Your task to perform on an android device: toggle data saver in the chrome app Image 0: 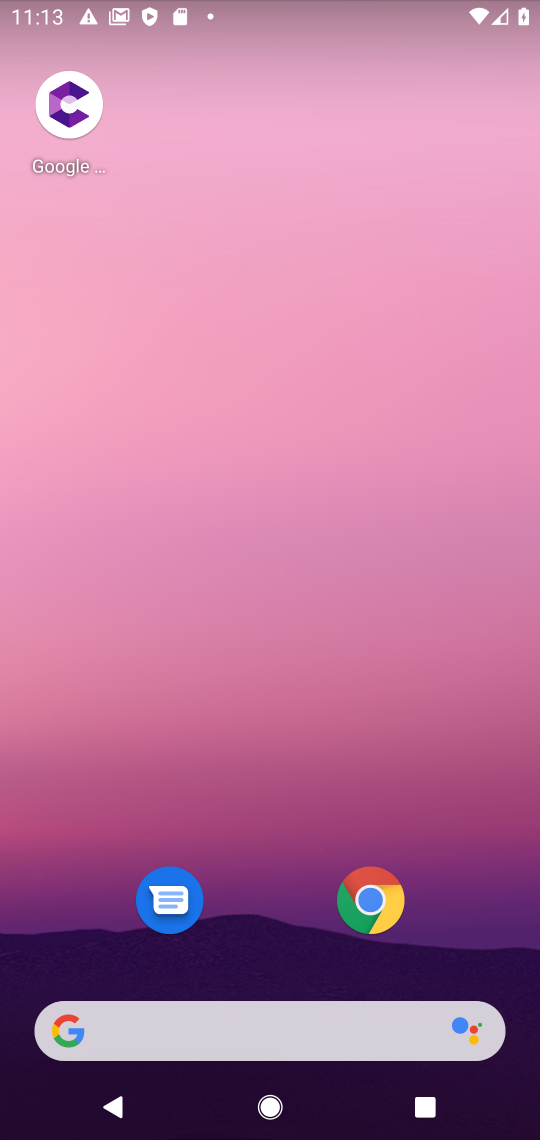
Step 0: click (367, 897)
Your task to perform on an android device: toggle data saver in the chrome app Image 1: 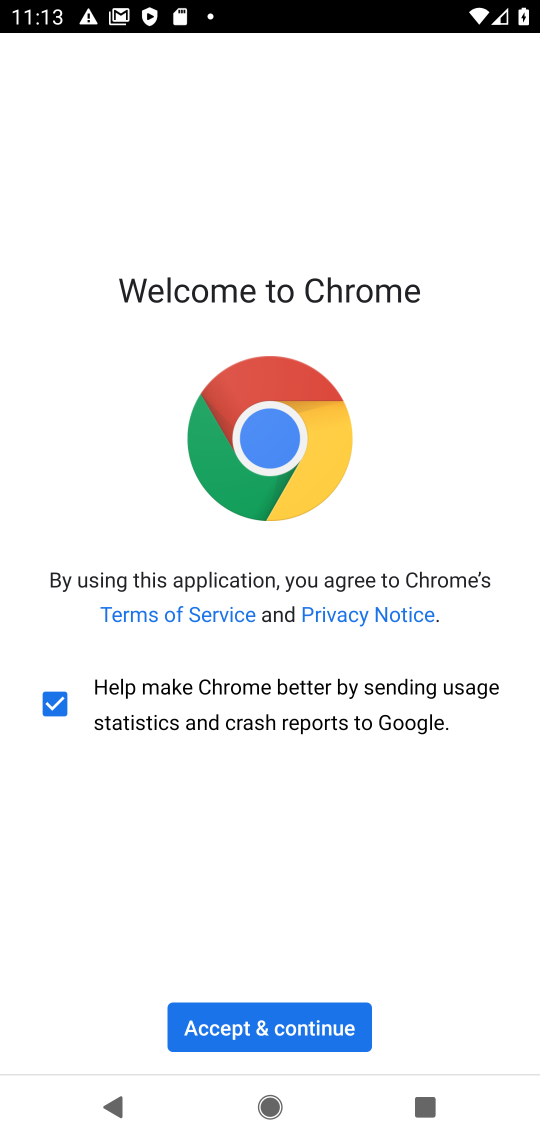
Step 1: click (270, 1031)
Your task to perform on an android device: toggle data saver in the chrome app Image 2: 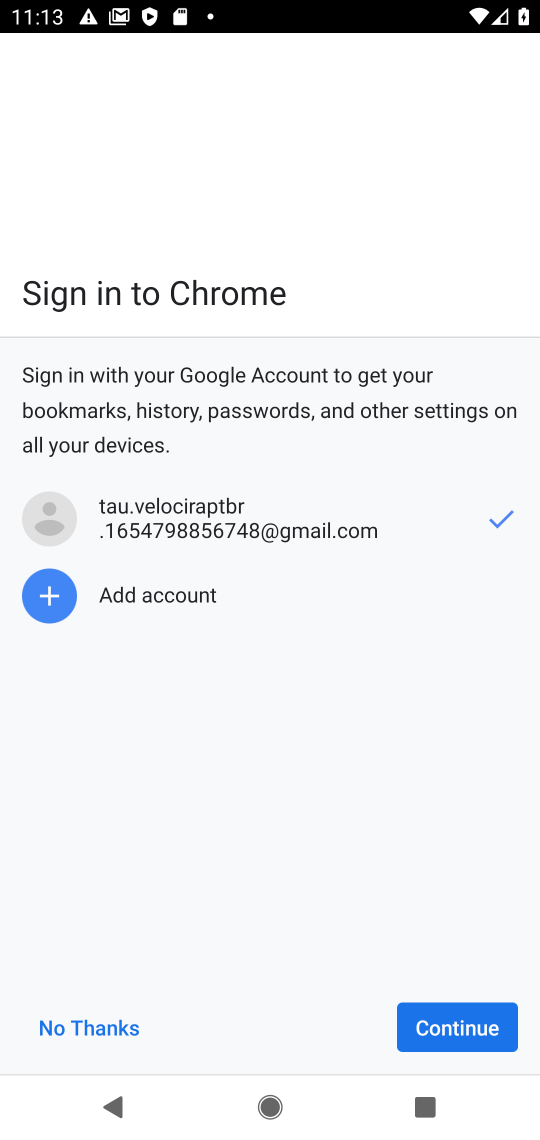
Step 2: click (460, 1025)
Your task to perform on an android device: toggle data saver in the chrome app Image 3: 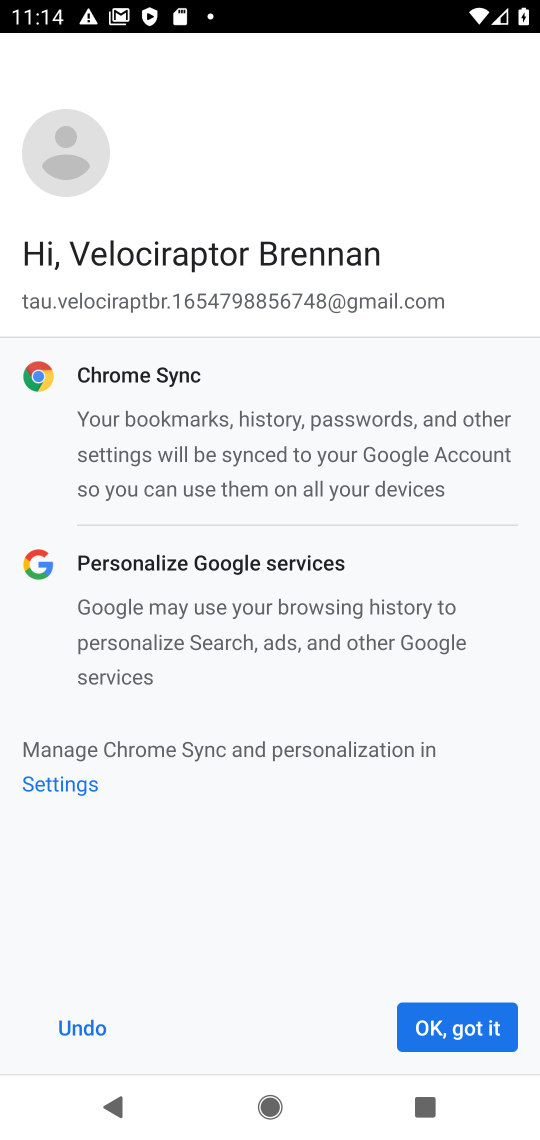
Step 3: click (454, 1021)
Your task to perform on an android device: toggle data saver in the chrome app Image 4: 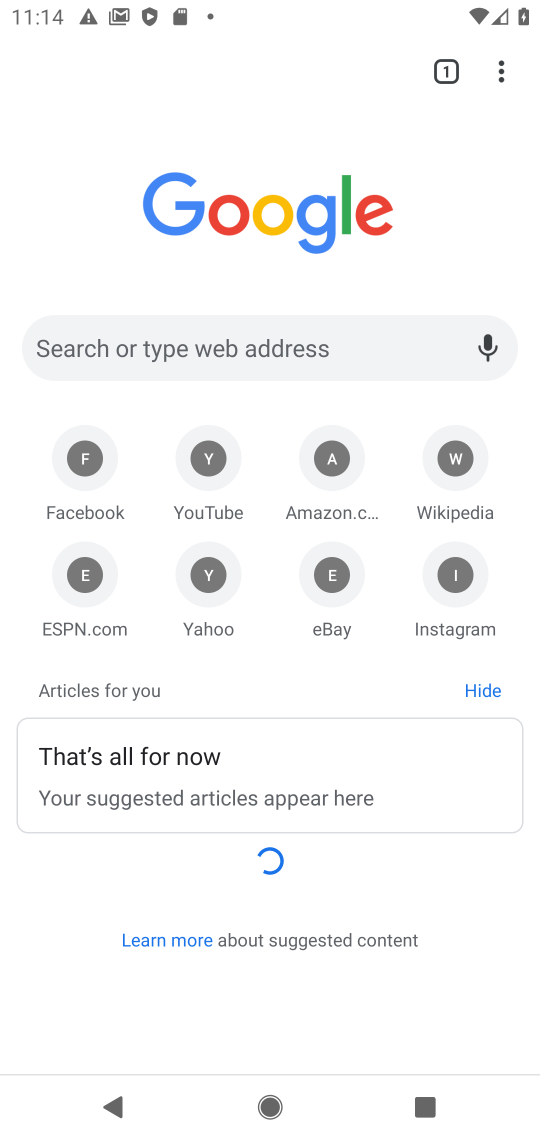
Step 4: drag from (503, 71) to (262, 599)
Your task to perform on an android device: toggle data saver in the chrome app Image 5: 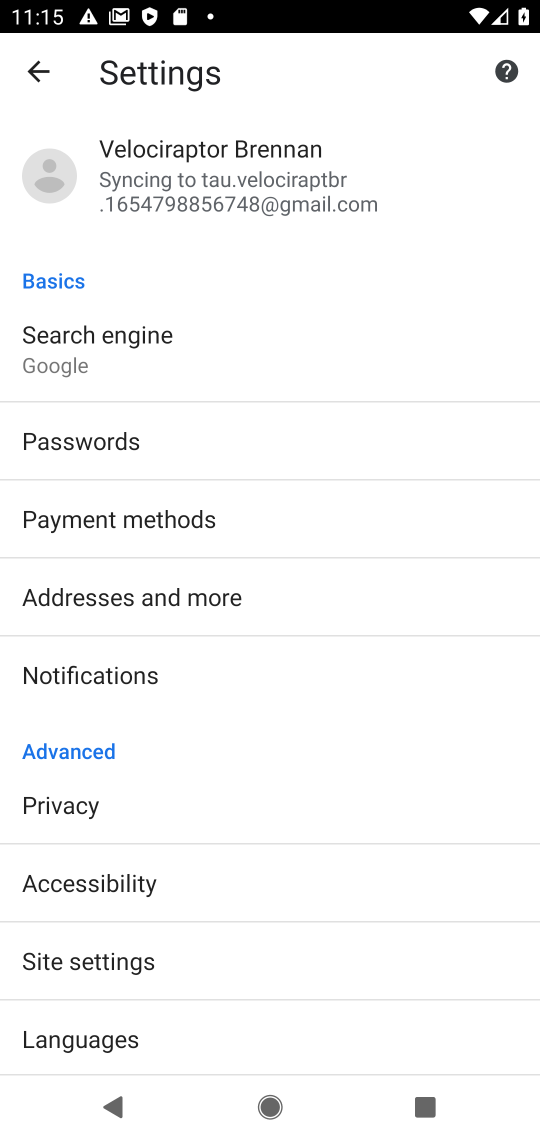
Step 5: drag from (103, 1020) to (122, 626)
Your task to perform on an android device: toggle data saver in the chrome app Image 6: 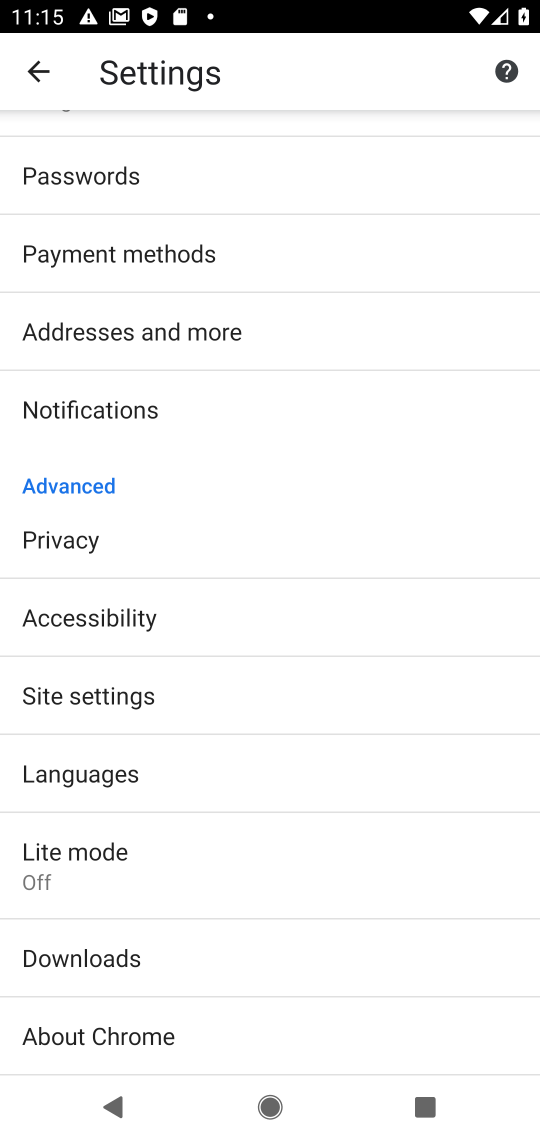
Step 6: click (96, 856)
Your task to perform on an android device: toggle data saver in the chrome app Image 7: 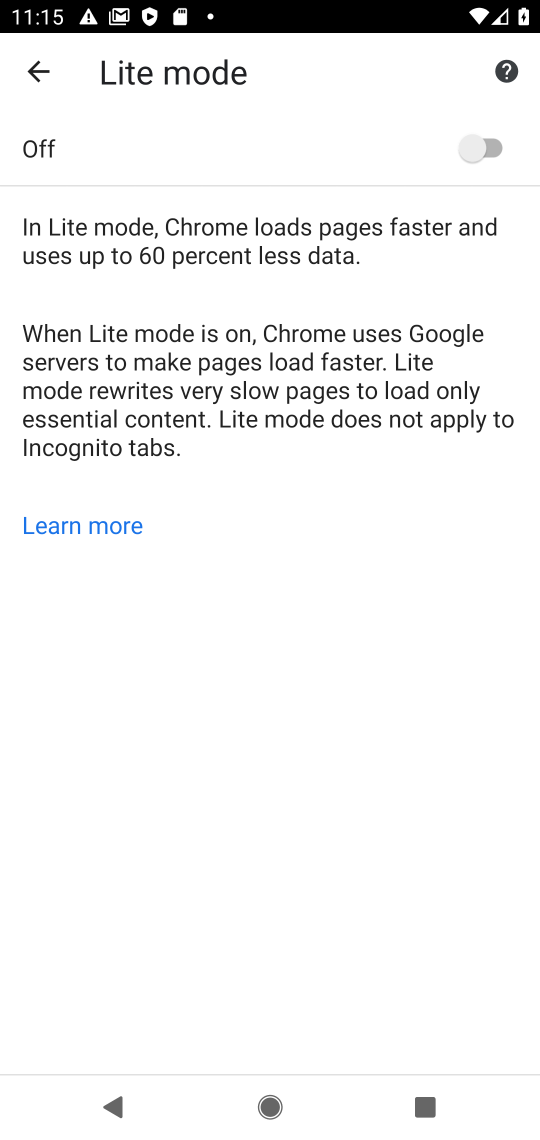
Step 7: click (488, 147)
Your task to perform on an android device: toggle data saver in the chrome app Image 8: 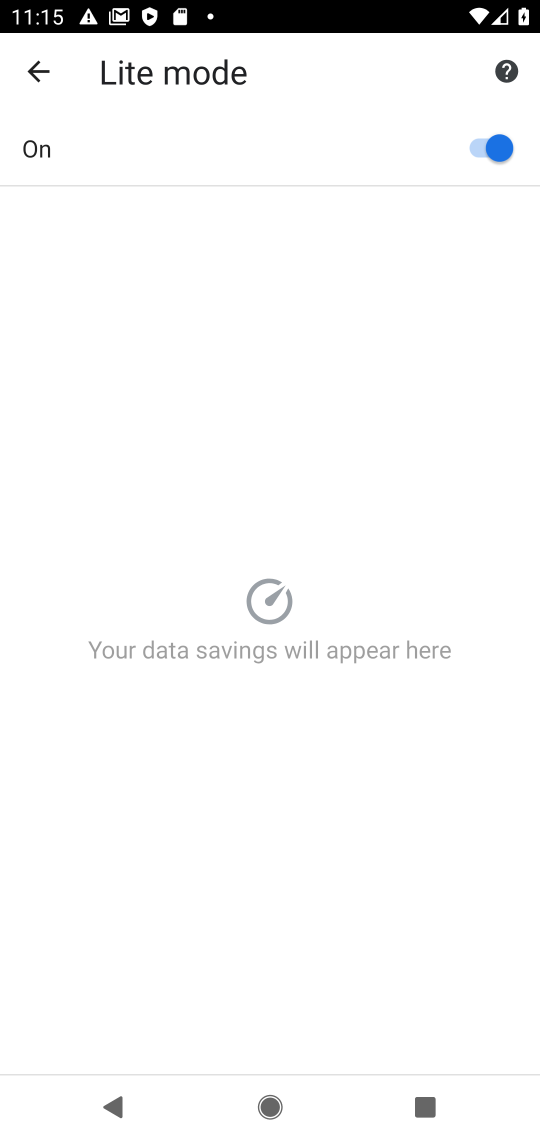
Step 8: task complete